Your task to perform on an android device: empty trash in google photos Image 0: 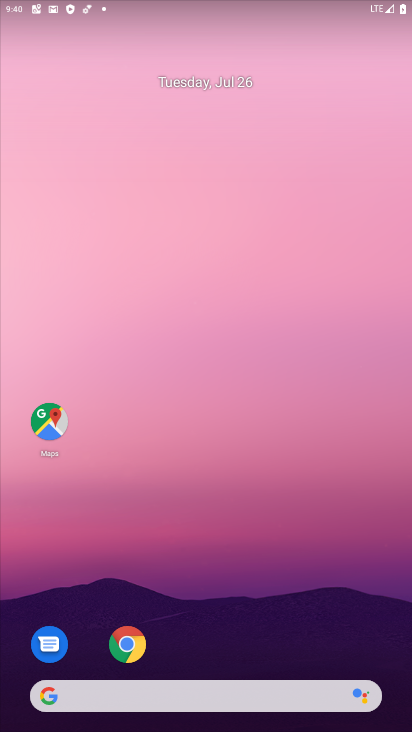
Step 0: drag from (238, 653) to (241, 94)
Your task to perform on an android device: empty trash in google photos Image 1: 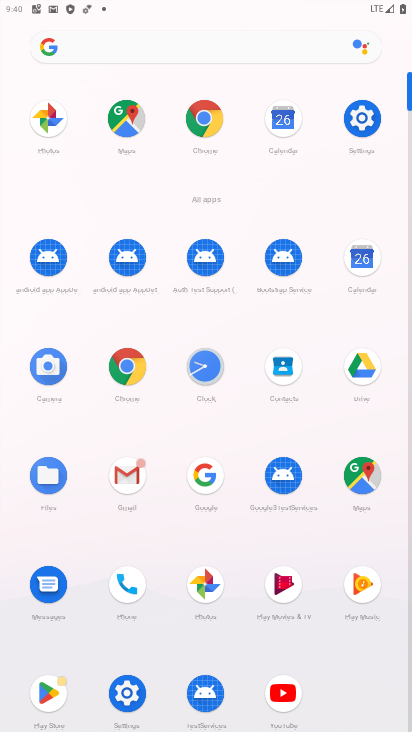
Step 1: click (213, 579)
Your task to perform on an android device: empty trash in google photos Image 2: 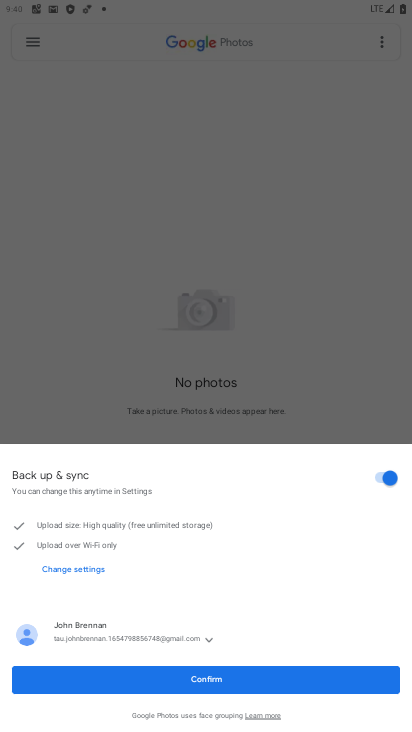
Step 2: click (219, 673)
Your task to perform on an android device: empty trash in google photos Image 3: 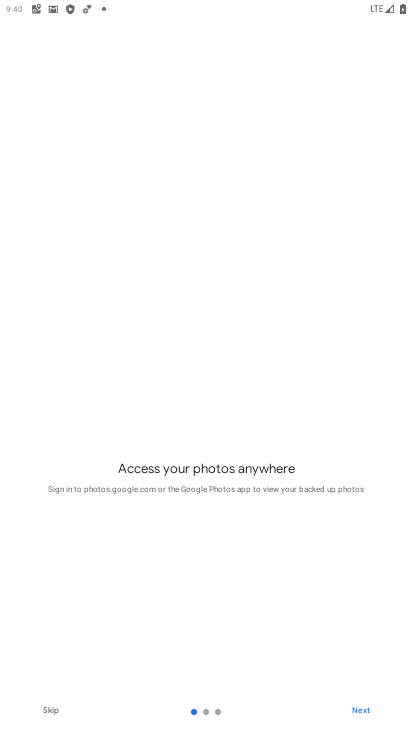
Step 3: click (48, 716)
Your task to perform on an android device: empty trash in google photos Image 4: 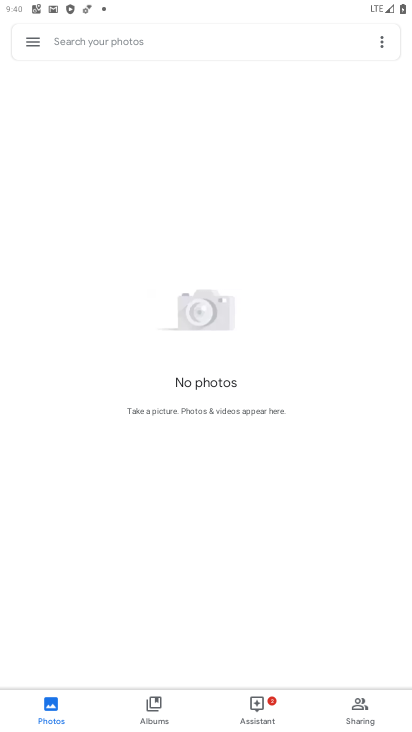
Step 4: click (30, 36)
Your task to perform on an android device: empty trash in google photos Image 5: 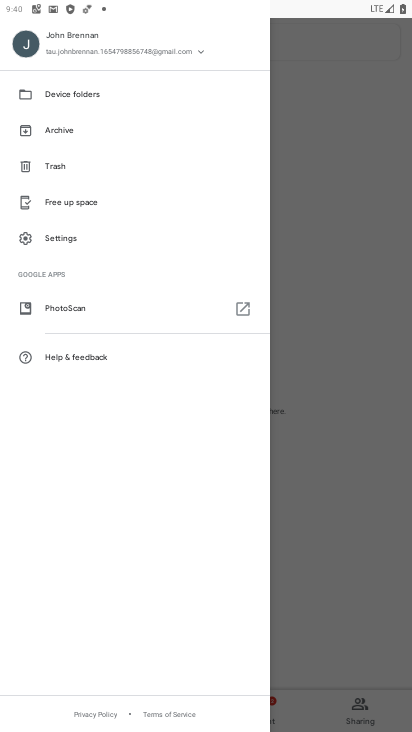
Step 5: click (64, 172)
Your task to perform on an android device: empty trash in google photos Image 6: 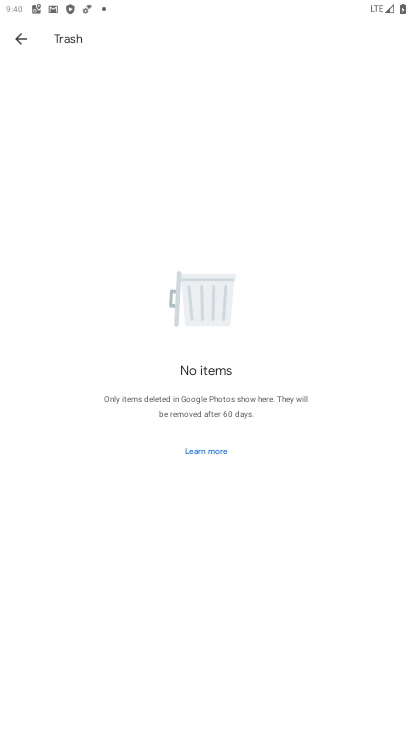
Step 6: task complete